Your task to perform on an android device: See recent photos Image 0: 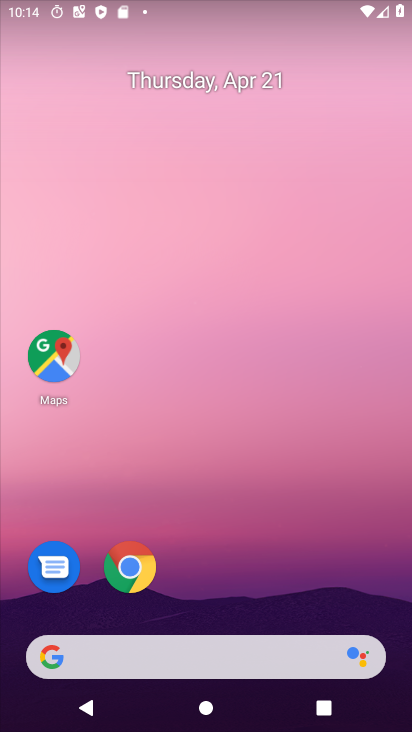
Step 0: drag from (204, 601) to (343, 83)
Your task to perform on an android device: See recent photos Image 1: 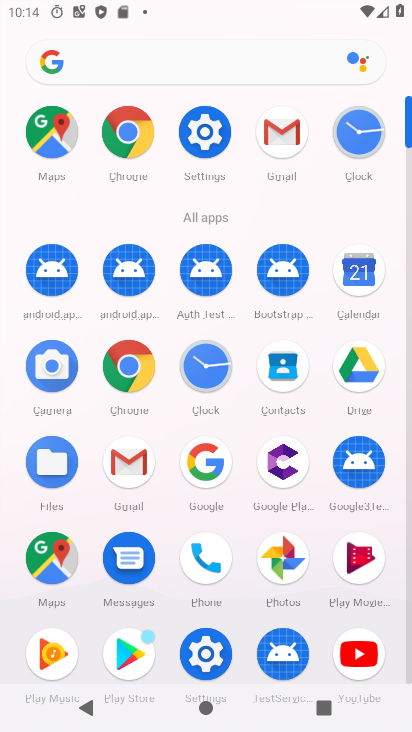
Step 1: click (276, 572)
Your task to perform on an android device: See recent photos Image 2: 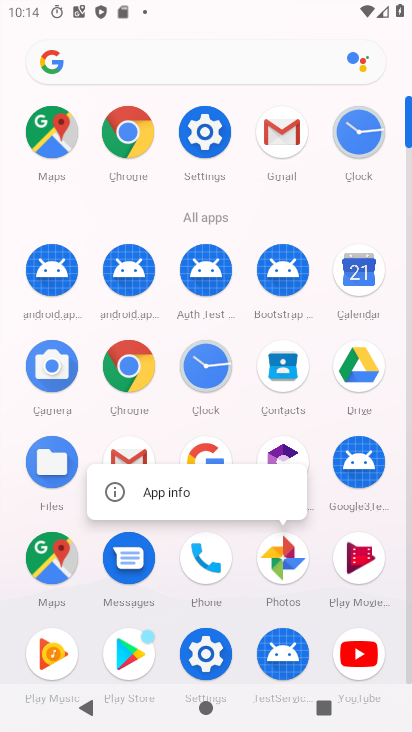
Step 2: click (275, 571)
Your task to perform on an android device: See recent photos Image 3: 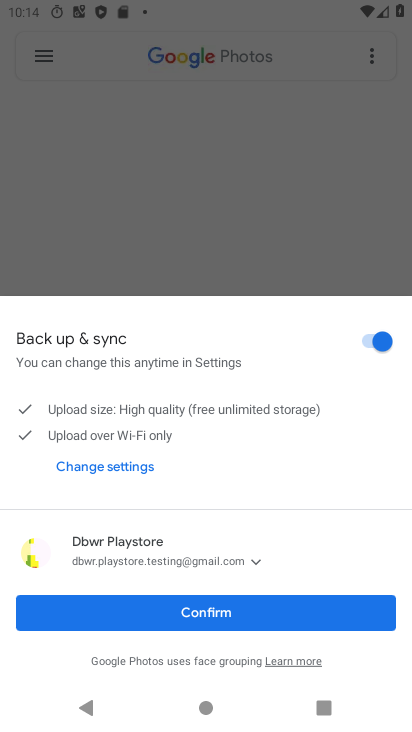
Step 3: click (210, 620)
Your task to perform on an android device: See recent photos Image 4: 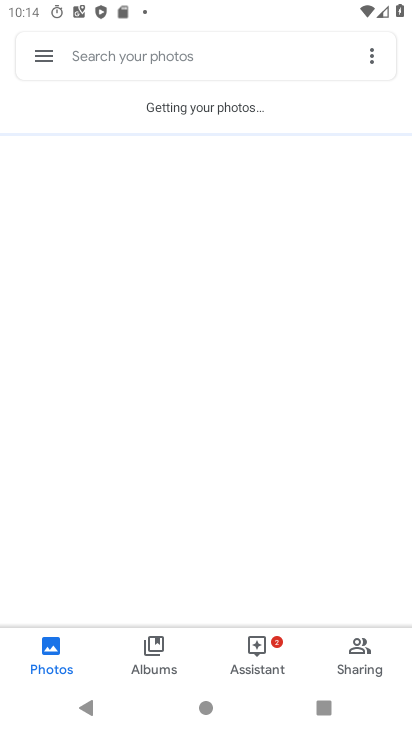
Step 4: drag from (188, 217) to (154, 409)
Your task to perform on an android device: See recent photos Image 5: 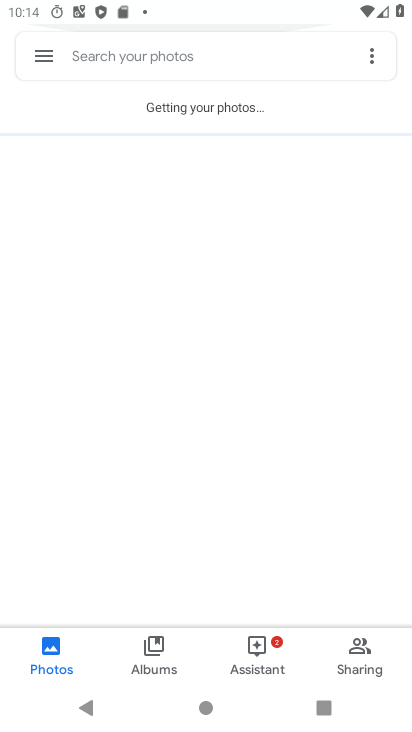
Step 5: click (23, 51)
Your task to perform on an android device: See recent photos Image 6: 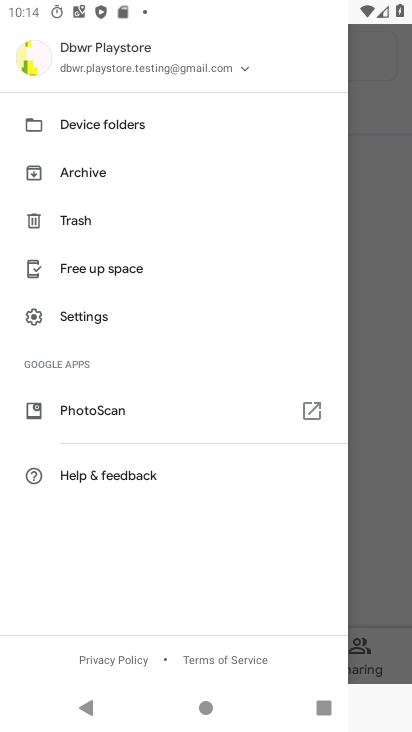
Step 6: drag from (350, 224) to (378, 181)
Your task to perform on an android device: See recent photos Image 7: 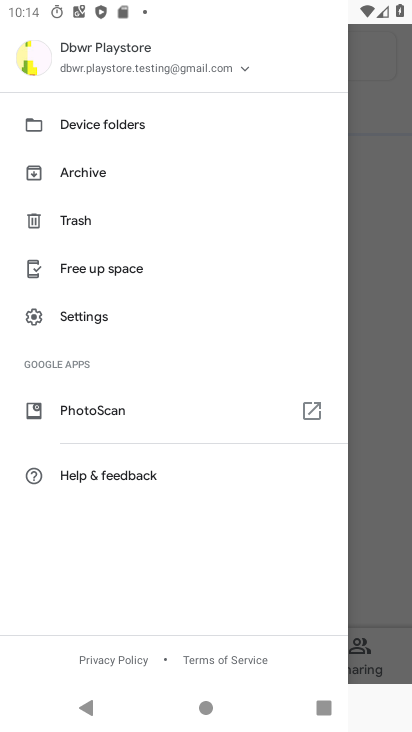
Step 7: click (378, 181)
Your task to perform on an android device: See recent photos Image 8: 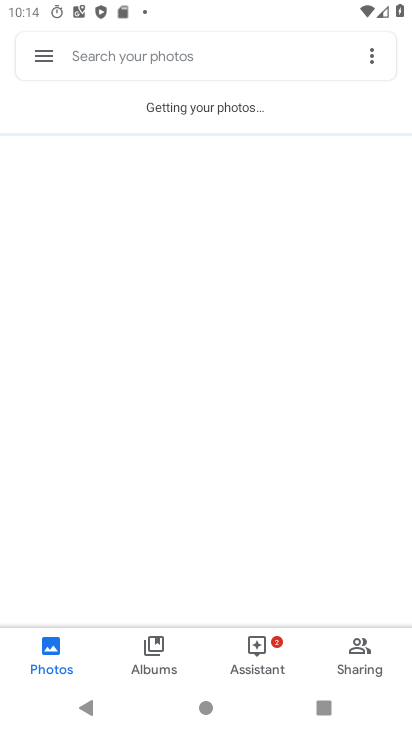
Step 8: click (371, 57)
Your task to perform on an android device: See recent photos Image 9: 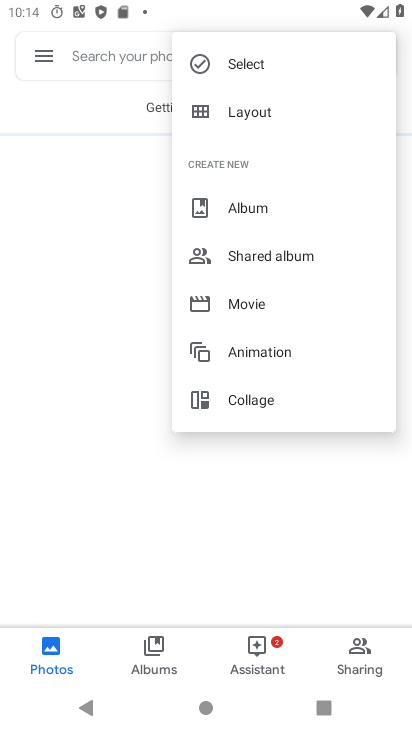
Step 9: click (198, 501)
Your task to perform on an android device: See recent photos Image 10: 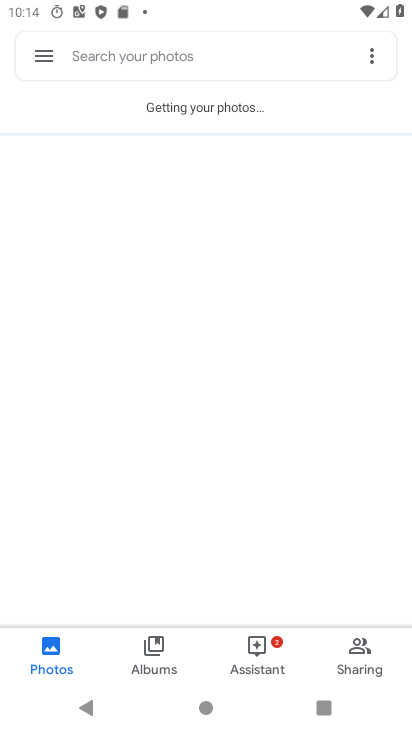
Step 10: click (197, 494)
Your task to perform on an android device: See recent photos Image 11: 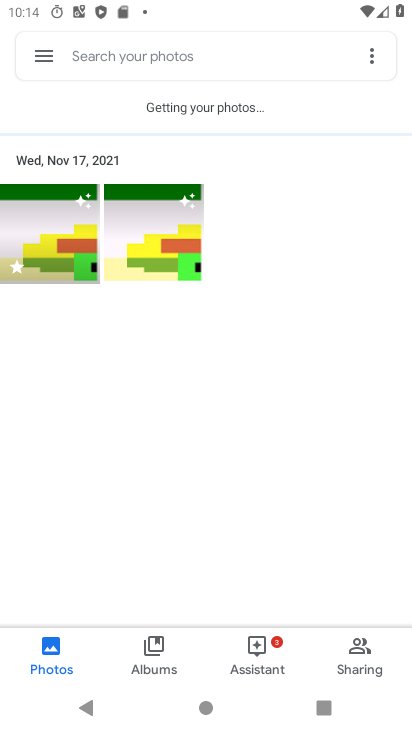
Step 11: task complete